Your task to perform on an android device: Open Chrome and go to the settings page Image 0: 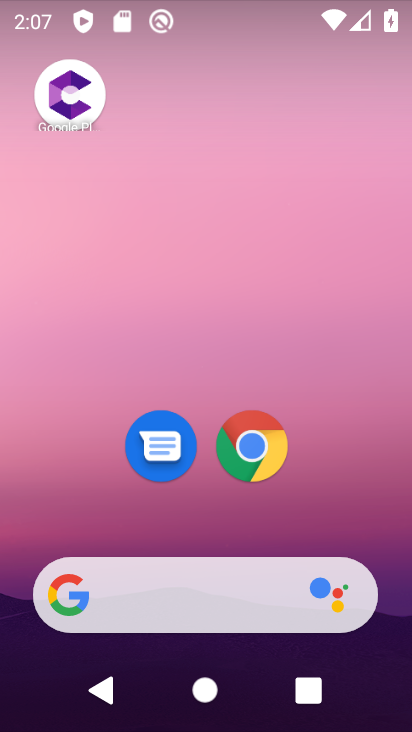
Step 0: click (271, 454)
Your task to perform on an android device: Open Chrome and go to the settings page Image 1: 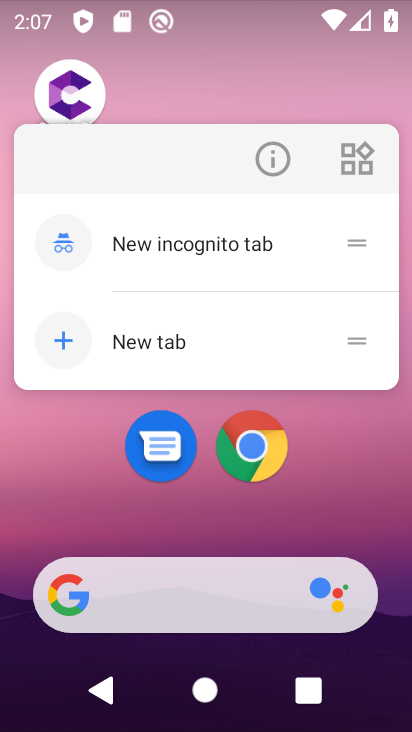
Step 1: click (257, 445)
Your task to perform on an android device: Open Chrome and go to the settings page Image 2: 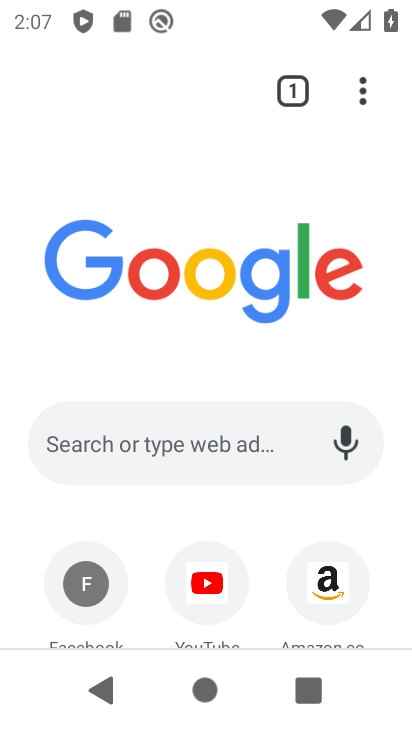
Step 2: task complete